Your task to perform on an android device: Open the stopwatch Image 0: 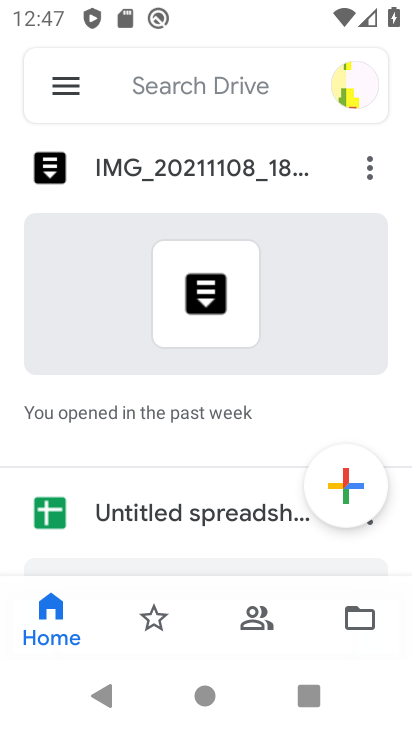
Step 0: press home button
Your task to perform on an android device: Open the stopwatch Image 1: 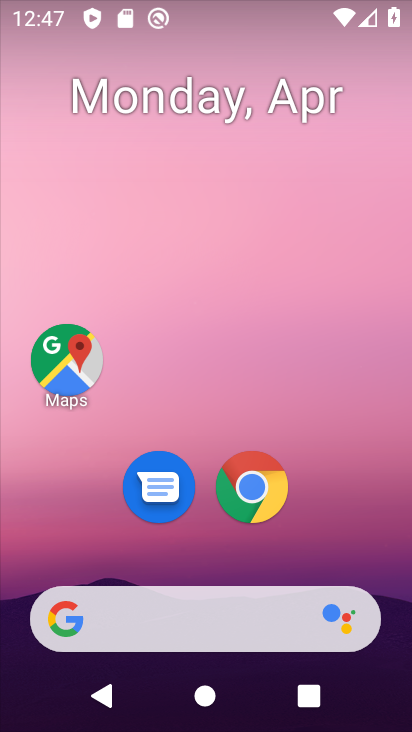
Step 1: drag from (393, 630) to (297, 142)
Your task to perform on an android device: Open the stopwatch Image 2: 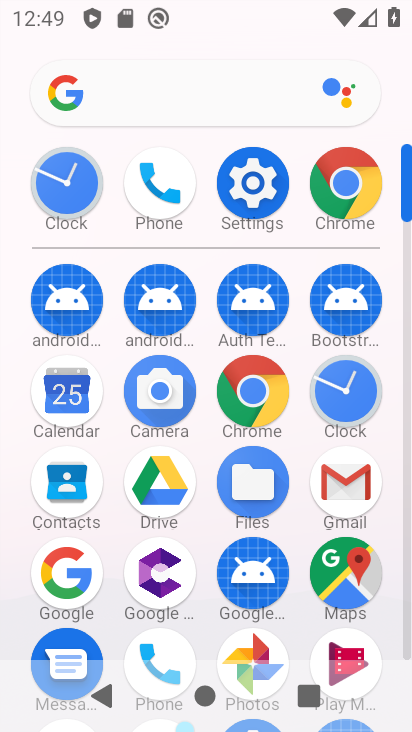
Step 2: click (345, 397)
Your task to perform on an android device: Open the stopwatch Image 3: 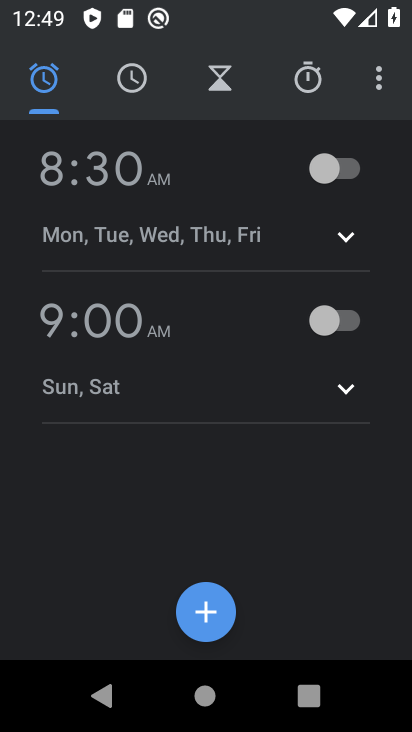
Step 3: click (293, 78)
Your task to perform on an android device: Open the stopwatch Image 4: 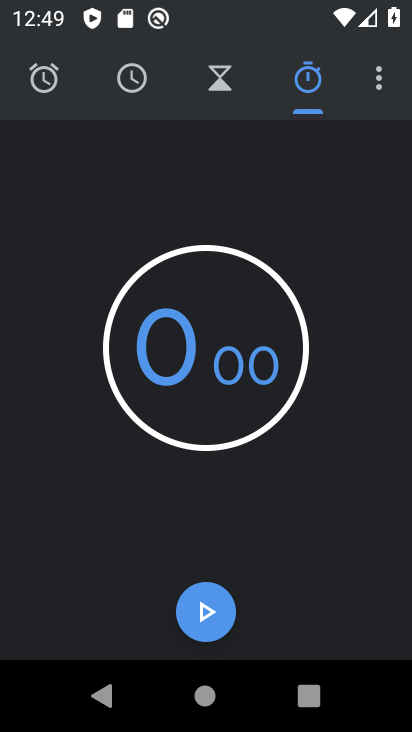
Step 4: task complete